Your task to perform on an android device: Search for "corsair k70" on bestbuy, select the first entry, and add it to the cart. Image 0: 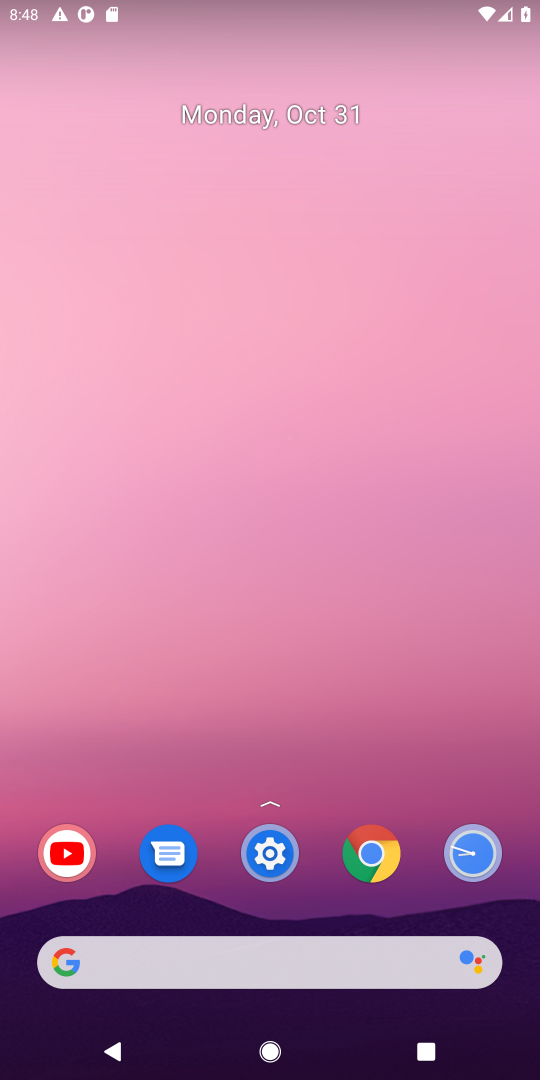
Step 0: click (244, 954)
Your task to perform on an android device: Search for "corsair k70" on bestbuy, select the first entry, and add it to the cart. Image 1: 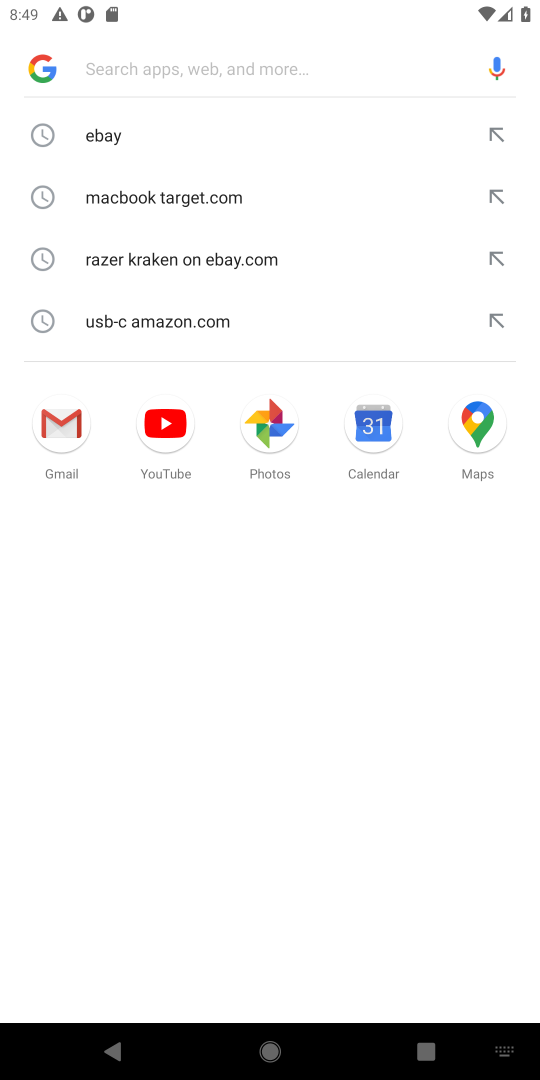
Step 1: type "bestbuy"
Your task to perform on an android device: Search for "corsair k70" on bestbuy, select the first entry, and add it to the cart. Image 2: 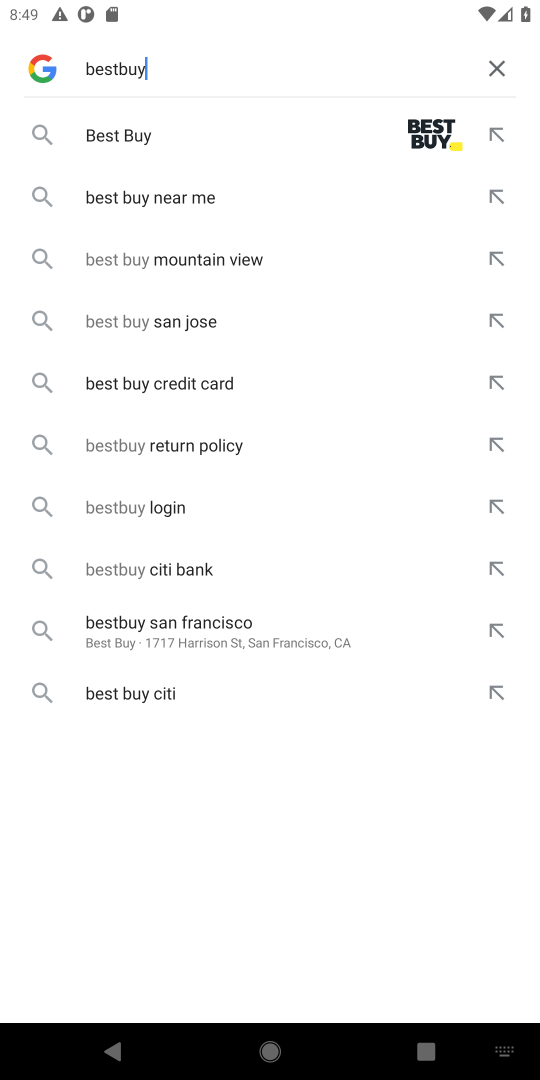
Step 2: click (111, 140)
Your task to perform on an android device: Search for "corsair k70" on bestbuy, select the first entry, and add it to the cart. Image 3: 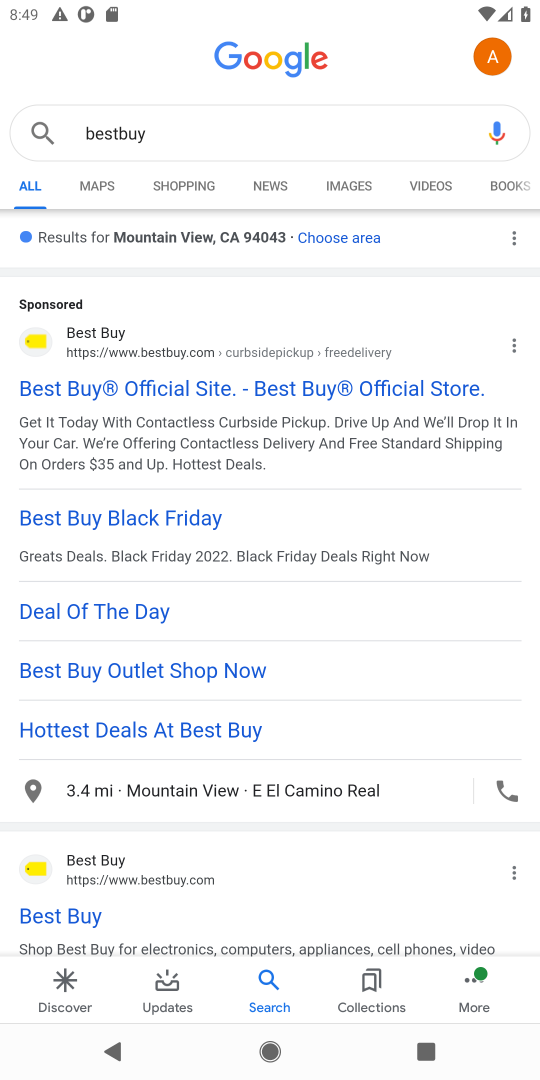
Step 3: click (78, 335)
Your task to perform on an android device: Search for "corsair k70" on bestbuy, select the first entry, and add it to the cart. Image 4: 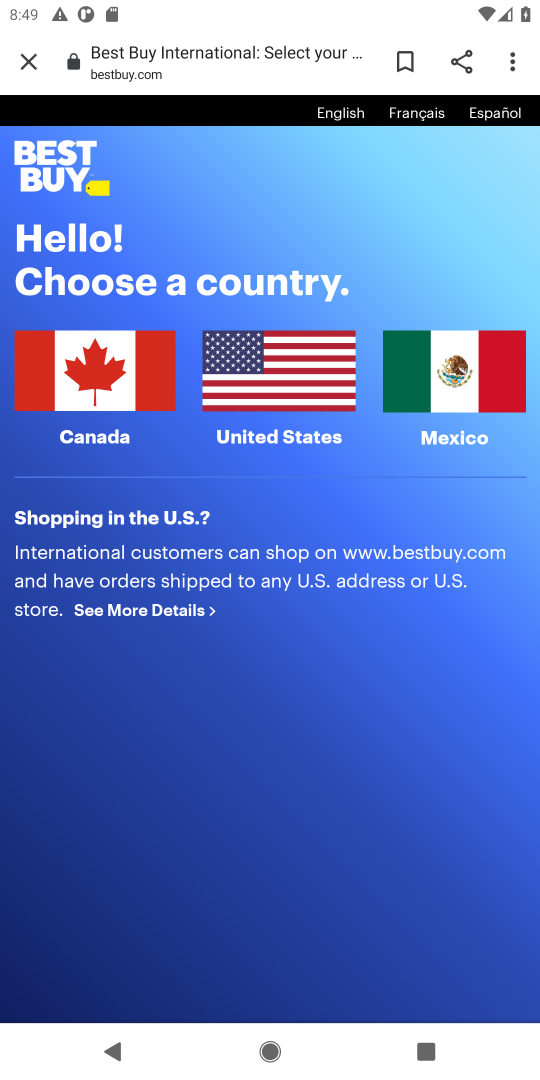
Step 4: click (285, 379)
Your task to perform on an android device: Search for "corsair k70" on bestbuy, select the first entry, and add it to the cart. Image 5: 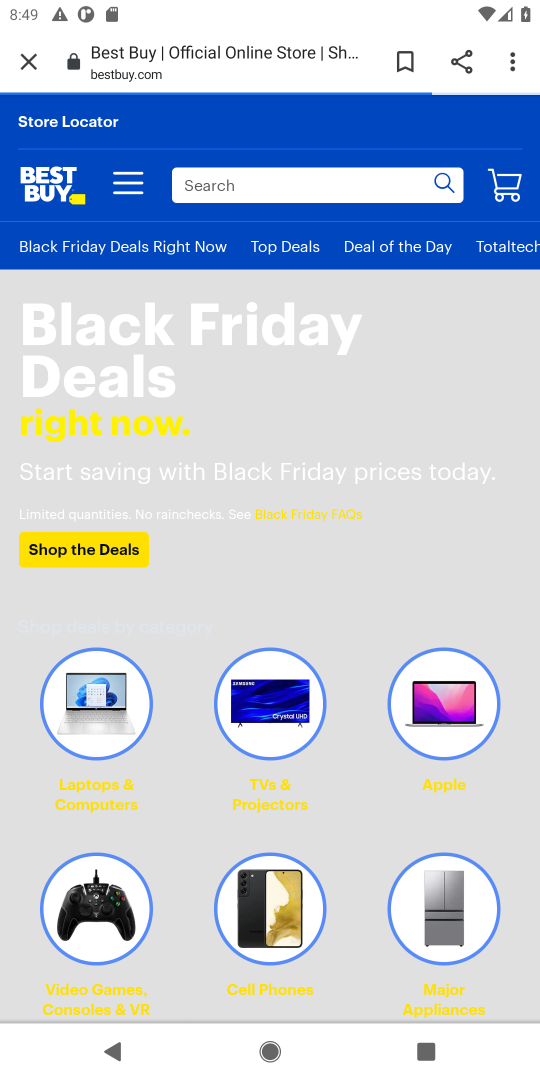
Step 5: click (250, 182)
Your task to perform on an android device: Search for "corsair k70" on bestbuy, select the first entry, and add it to the cart. Image 6: 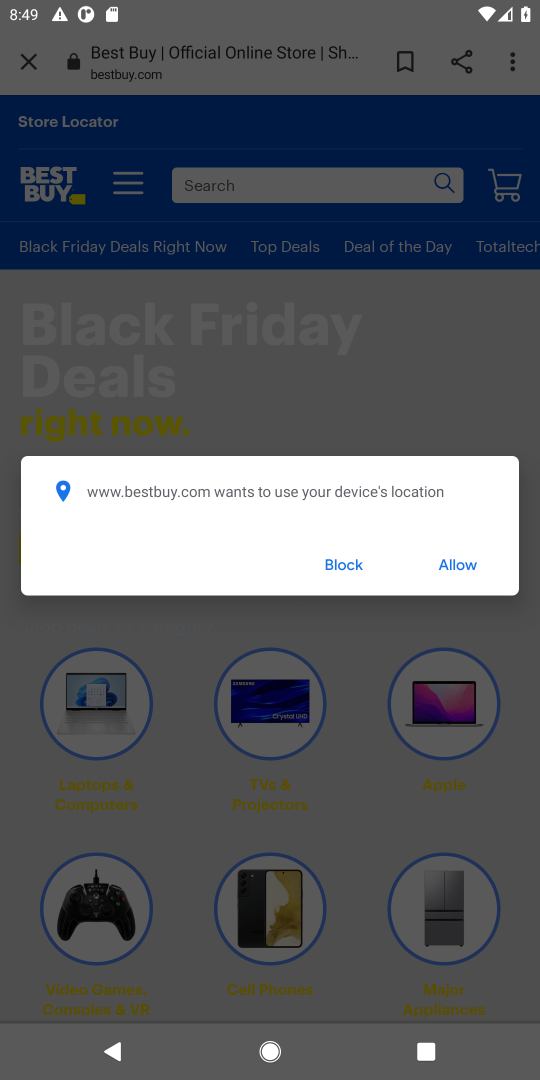
Step 6: click (450, 559)
Your task to perform on an android device: Search for "corsair k70" on bestbuy, select the first entry, and add it to the cart. Image 7: 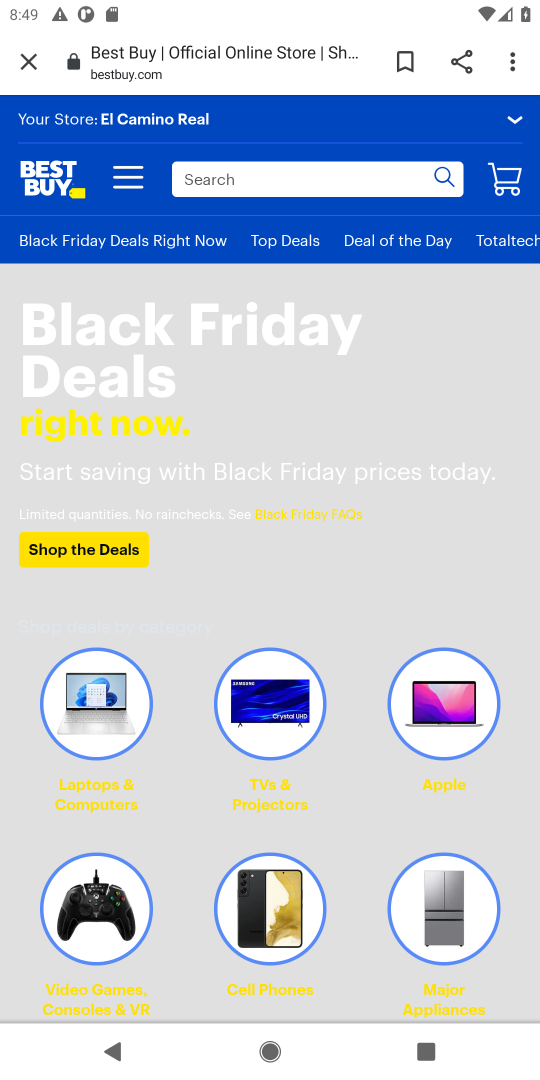
Step 7: click (223, 177)
Your task to perform on an android device: Search for "corsair k70" on bestbuy, select the first entry, and add it to the cart. Image 8: 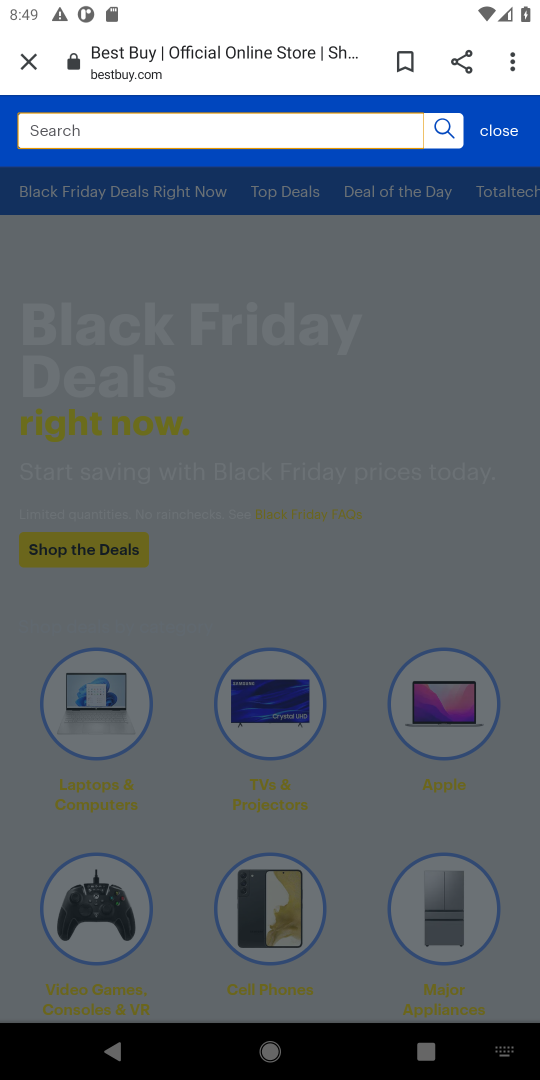
Step 8: type "corsair k70"
Your task to perform on an android device: Search for "corsair k70" on bestbuy, select the first entry, and add it to the cart. Image 9: 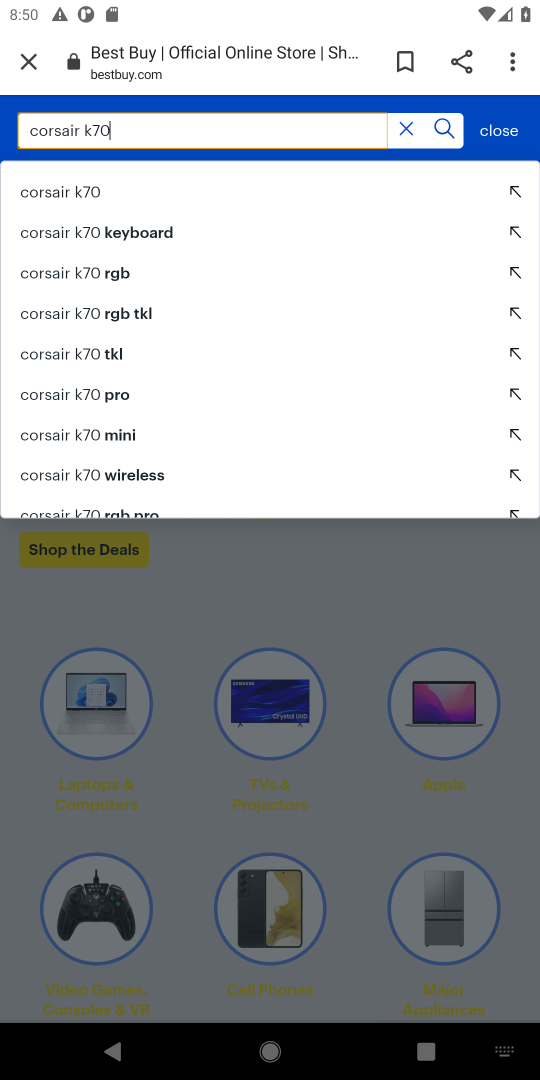
Step 9: type ""
Your task to perform on an android device: Search for "corsair k70" on bestbuy, select the first entry, and add it to the cart. Image 10: 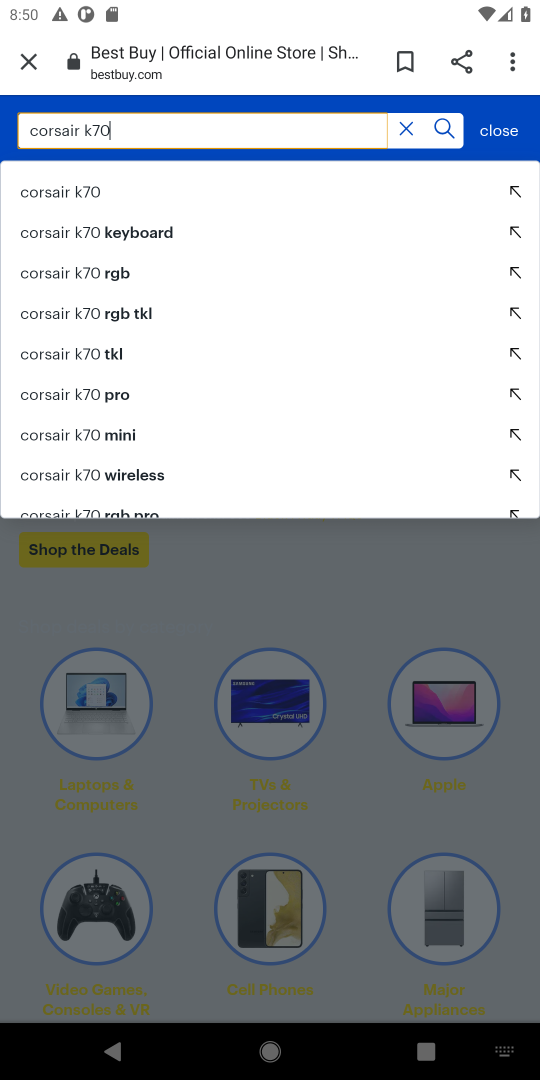
Step 10: click (509, 186)
Your task to perform on an android device: Search for "corsair k70" on bestbuy, select the first entry, and add it to the cart. Image 11: 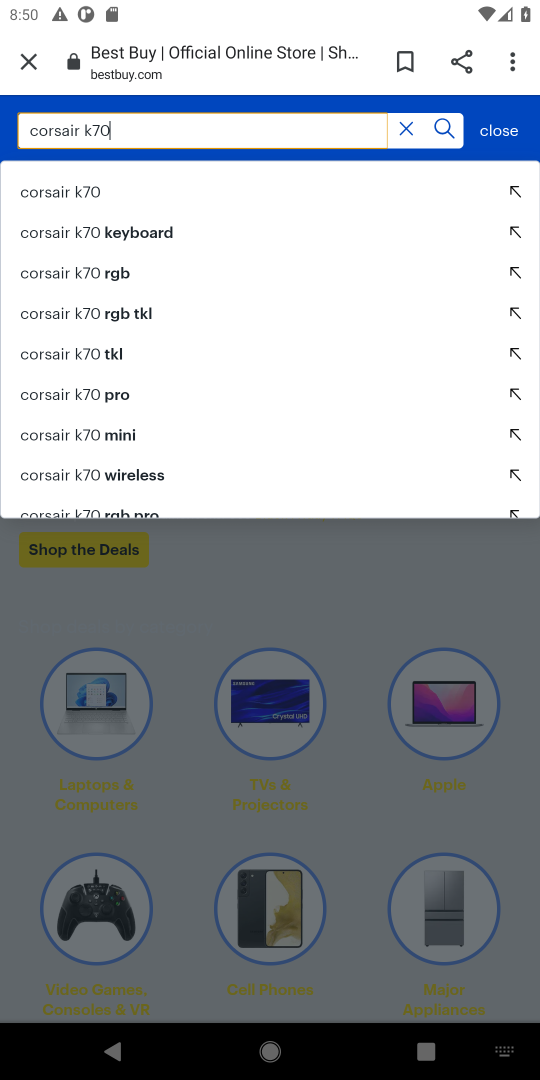
Step 11: click (226, 186)
Your task to perform on an android device: Search for "corsair k70" on bestbuy, select the first entry, and add it to the cart. Image 12: 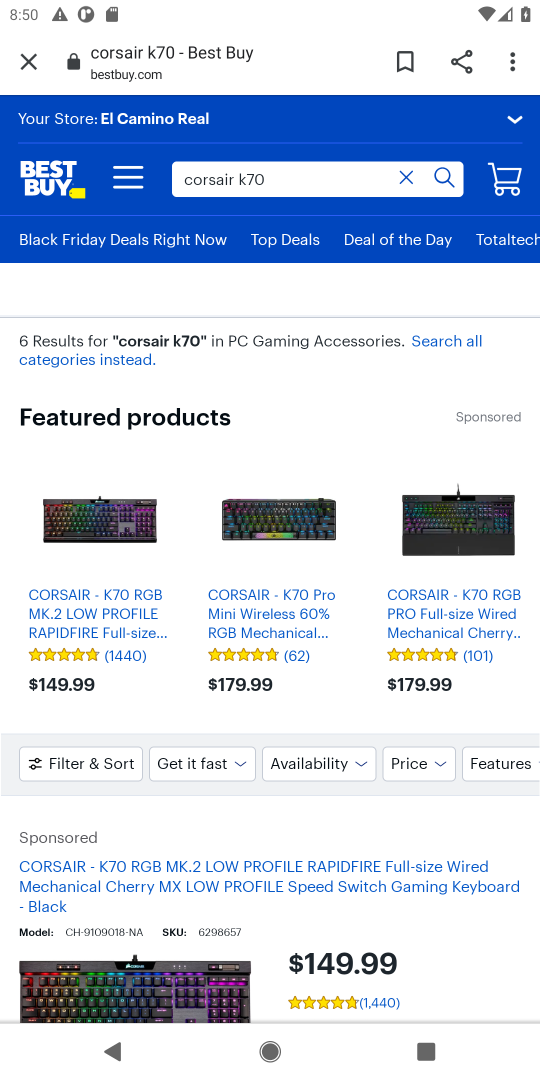
Step 12: drag from (471, 823) to (451, 602)
Your task to perform on an android device: Search for "corsair k70" on bestbuy, select the first entry, and add it to the cart. Image 13: 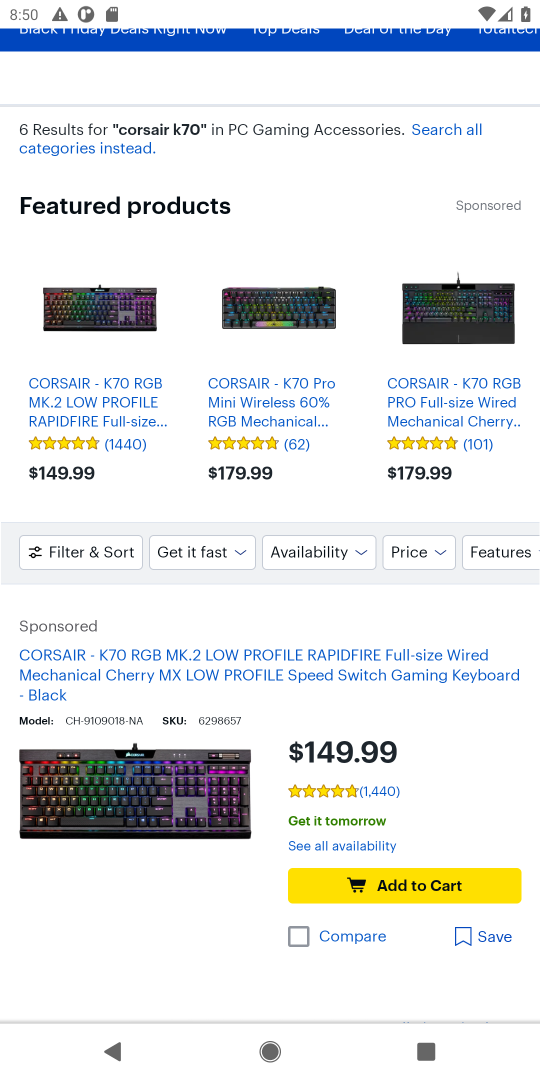
Step 13: click (422, 883)
Your task to perform on an android device: Search for "corsair k70" on bestbuy, select the first entry, and add it to the cart. Image 14: 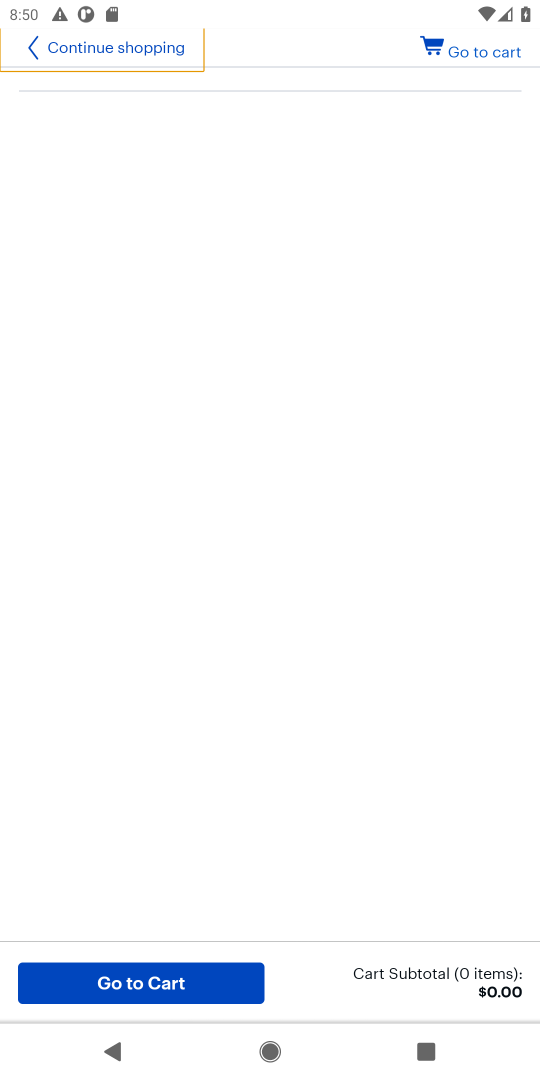
Step 14: drag from (383, 608) to (368, 391)
Your task to perform on an android device: Search for "corsair k70" on bestbuy, select the first entry, and add it to the cart. Image 15: 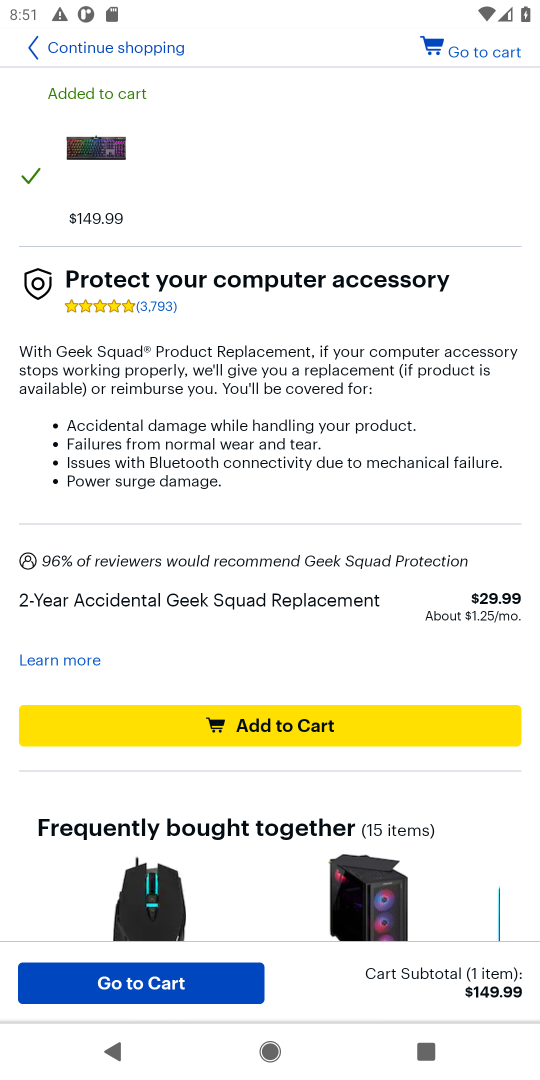
Step 15: click (144, 982)
Your task to perform on an android device: Search for "corsair k70" on bestbuy, select the first entry, and add it to the cart. Image 16: 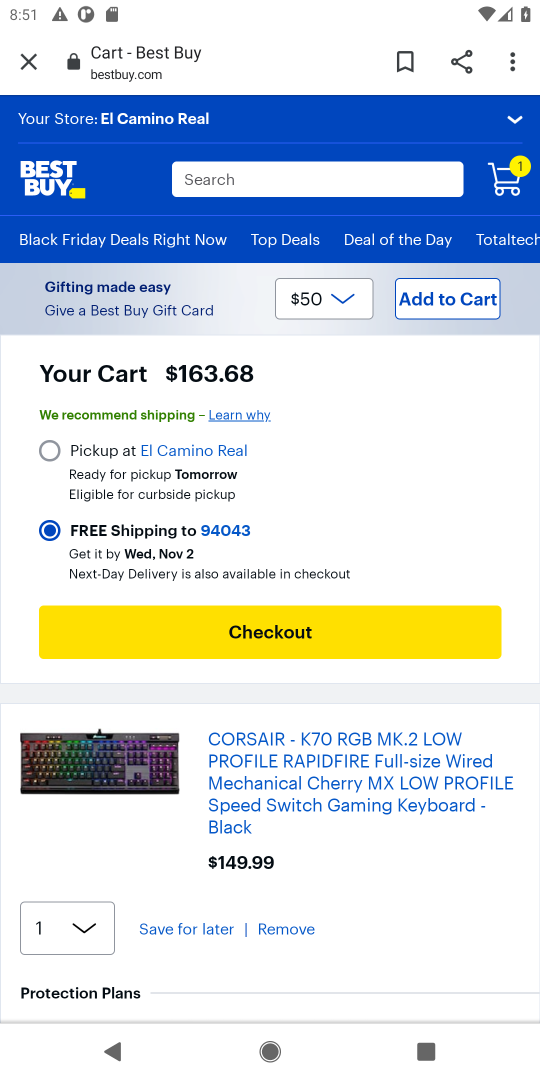
Step 16: task complete